Your task to perform on an android device: delete browsing data in the chrome app Image 0: 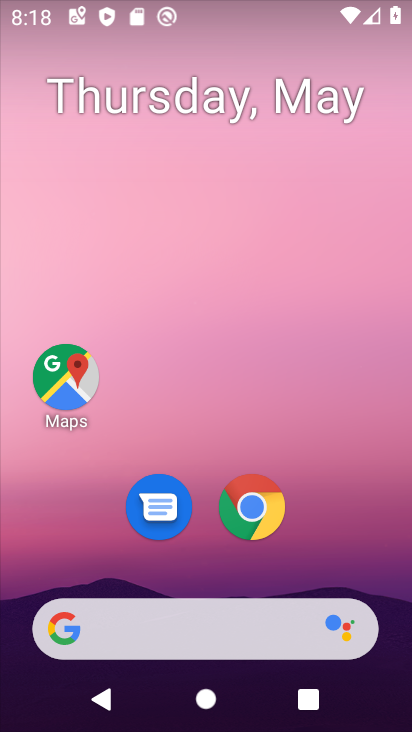
Step 0: press home button
Your task to perform on an android device: delete browsing data in the chrome app Image 1: 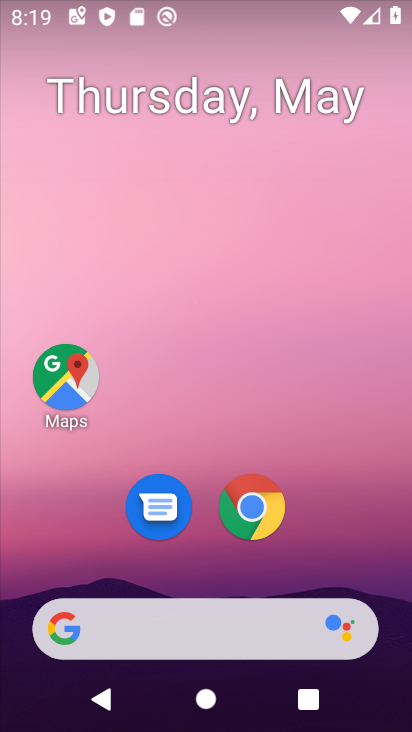
Step 1: drag from (281, 660) to (270, 142)
Your task to perform on an android device: delete browsing data in the chrome app Image 2: 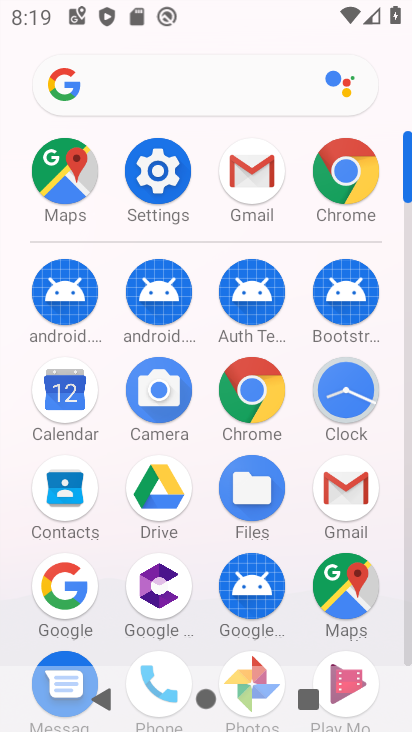
Step 2: click (332, 177)
Your task to perform on an android device: delete browsing data in the chrome app Image 3: 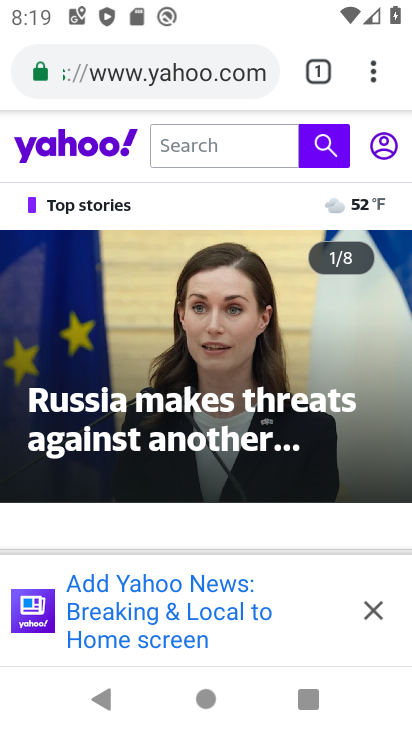
Step 3: click (373, 67)
Your task to perform on an android device: delete browsing data in the chrome app Image 4: 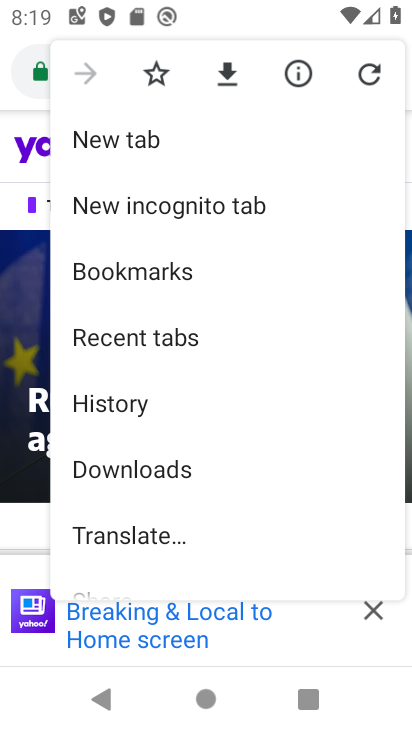
Step 4: click (132, 399)
Your task to perform on an android device: delete browsing data in the chrome app Image 5: 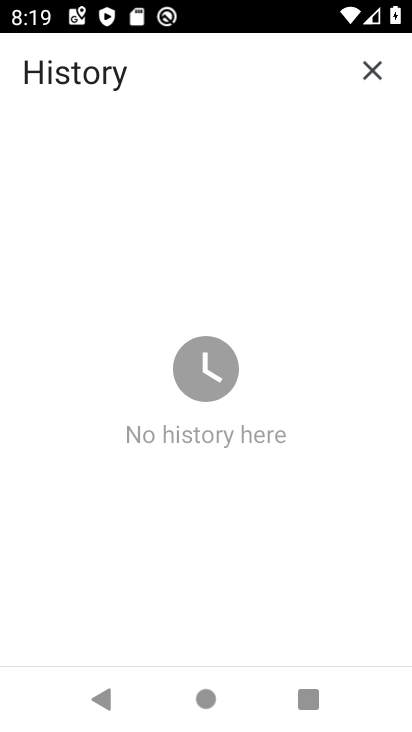
Step 5: task complete